Your task to perform on an android device: check android version Image 0: 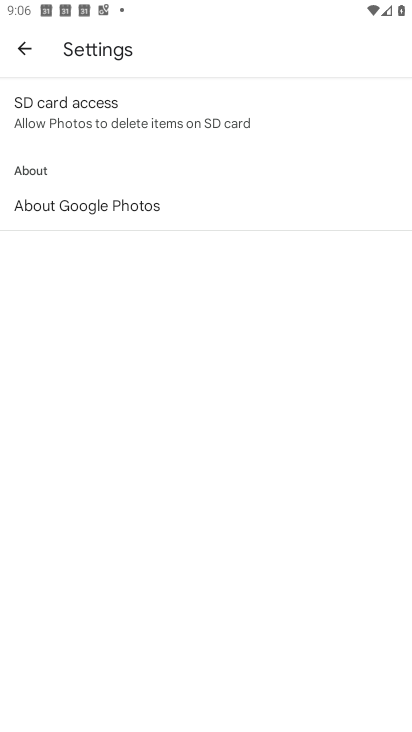
Step 0: press home button
Your task to perform on an android device: check android version Image 1: 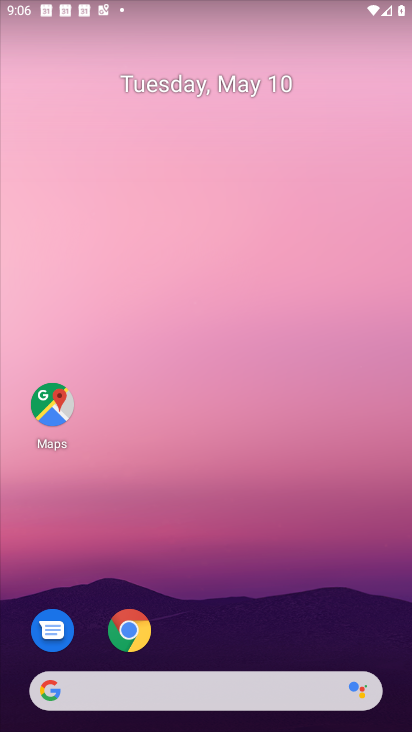
Step 1: drag from (194, 729) to (141, 142)
Your task to perform on an android device: check android version Image 2: 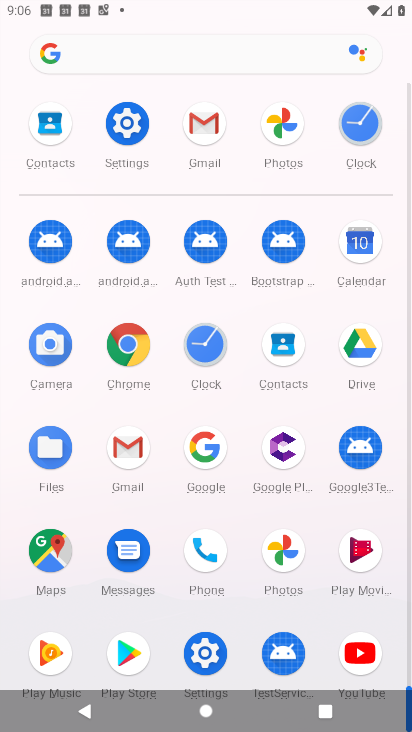
Step 2: click (130, 114)
Your task to perform on an android device: check android version Image 3: 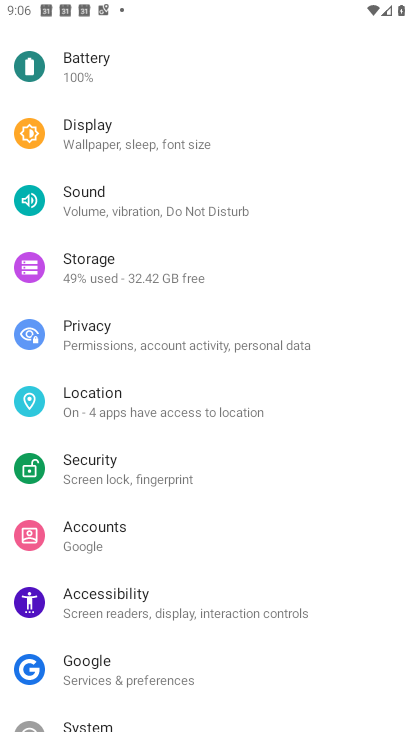
Step 3: drag from (257, 662) to (325, 95)
Your task to perform on an android device: check android version Image 4: 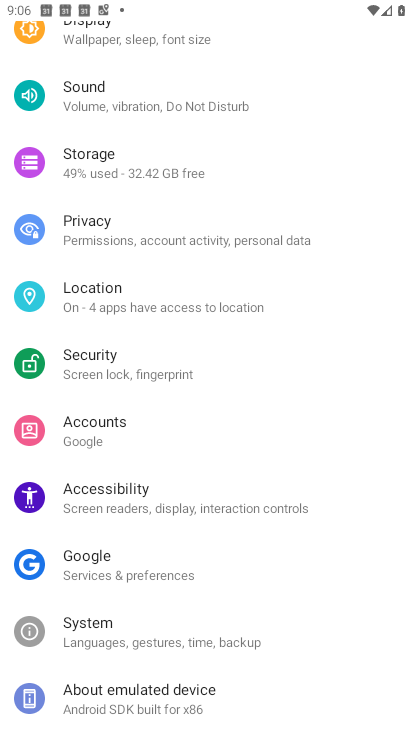
Step 4: drag from (286, 700) to (345, 93)
Your task to perform on an android device: check android version Image 5: 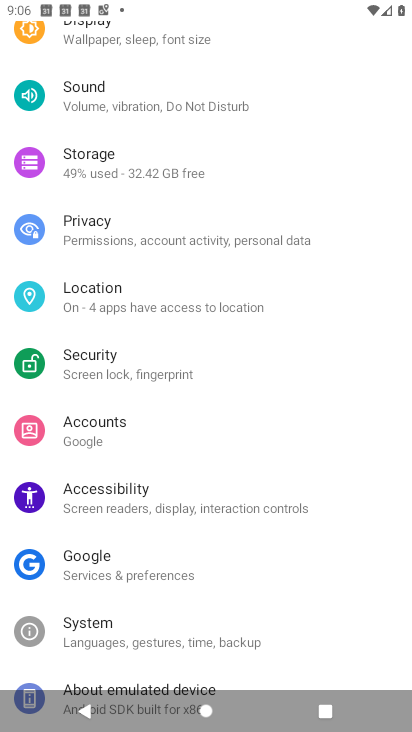
Step 5: click (176, 683)
Your task to perform on an android device: check android version Image 6: 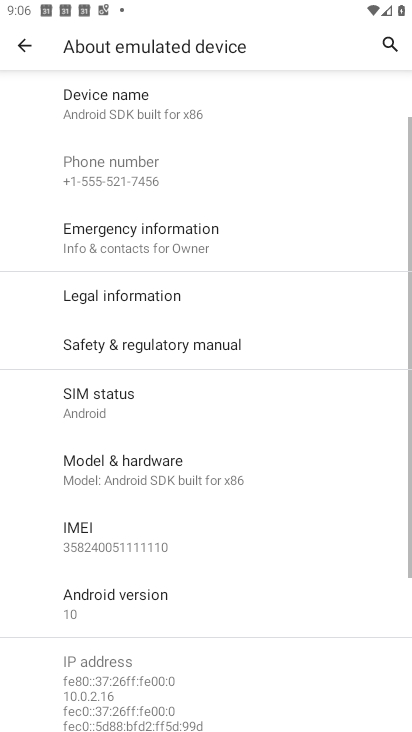
Step 6: task complete